Your task to perform on an android device: Open internet settings Image 0: 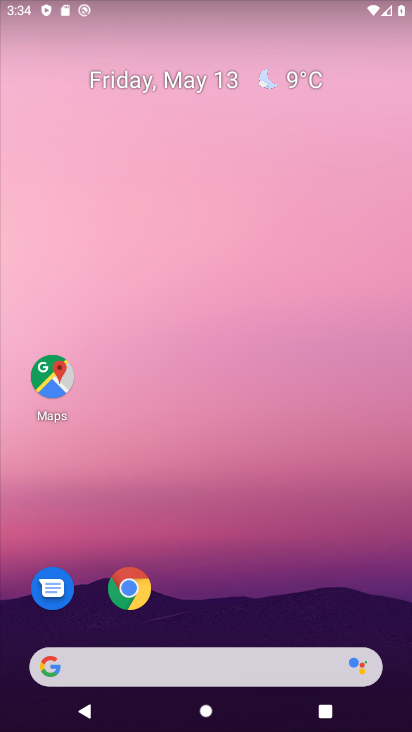
Step 0: click (237, 619)
Your task to perform on an android device: Open internet settings Image 1: 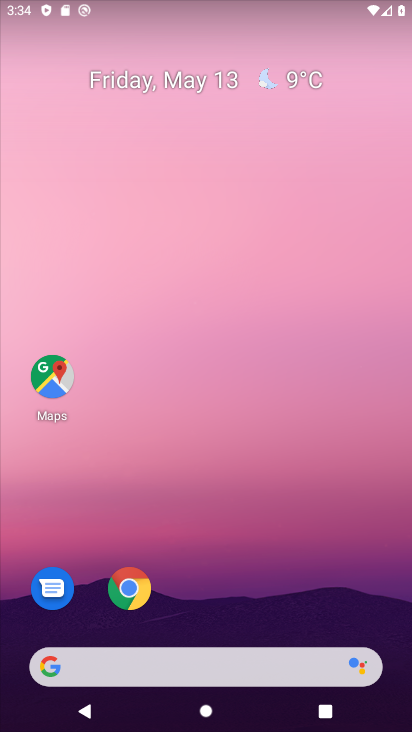
Step 1: drag from (234, 645) to (344, 113)
Your task to perform on an android device: Open internet settings Image 2: 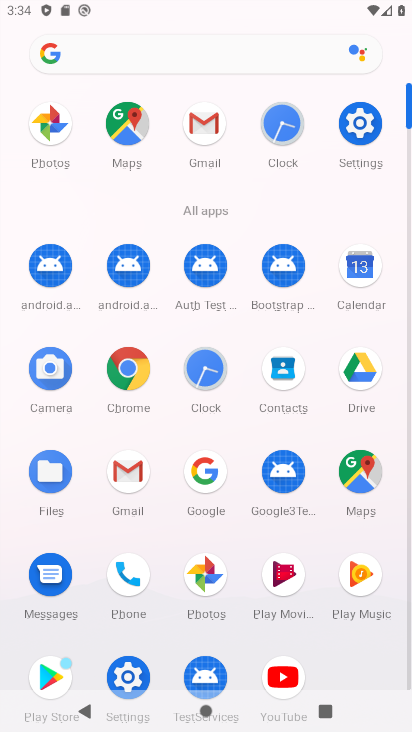
Step 2: drag from (168, 600) to (218, 475)
Your task to perform on an android device: Open internet settings Image 3: 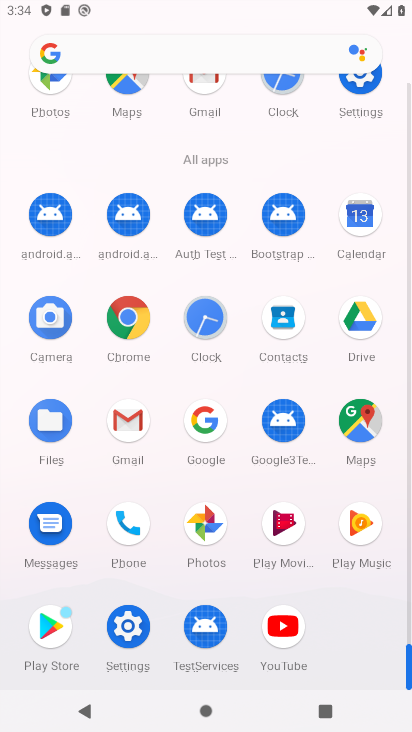
Step 3: click (119, 616)
Your task to perform on an android device: Open internet settings Image 4: 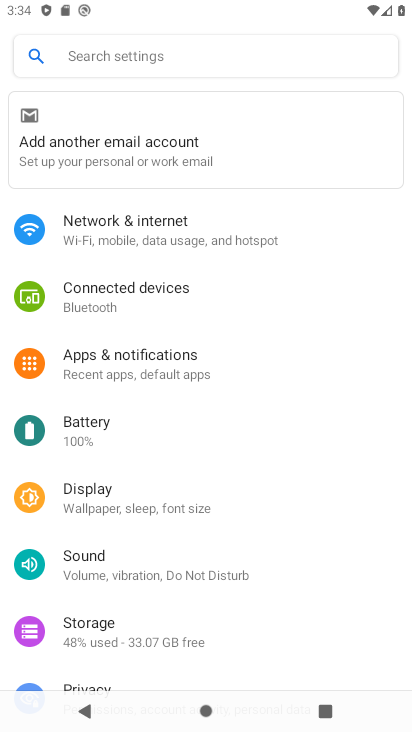
Step 4: click (202, 242)
Your task to perform on an android device: Open internet settings Image 5: 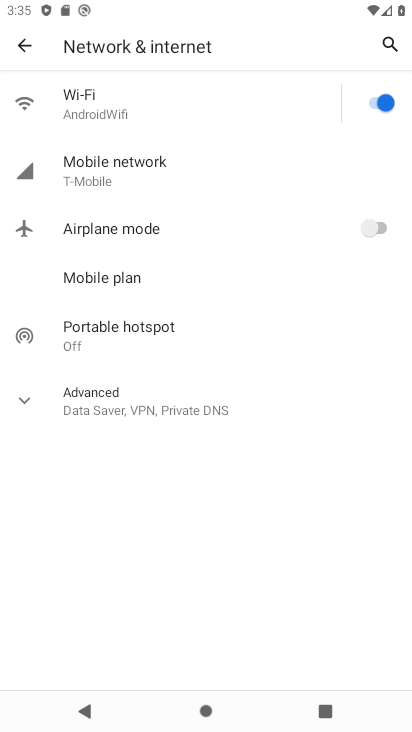
Step 5: click (196, 174)
Your task to perform on an android device: Open internet settings Image 6: 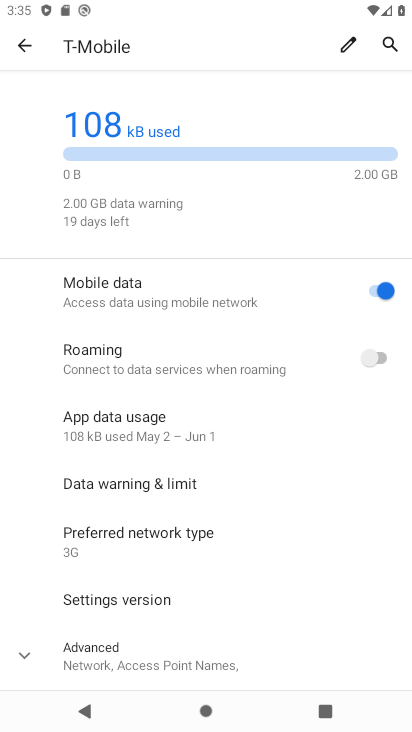
Step 6: task complete